Your task to perform on an android device: turn on the 12-hour format for clock Image 0: 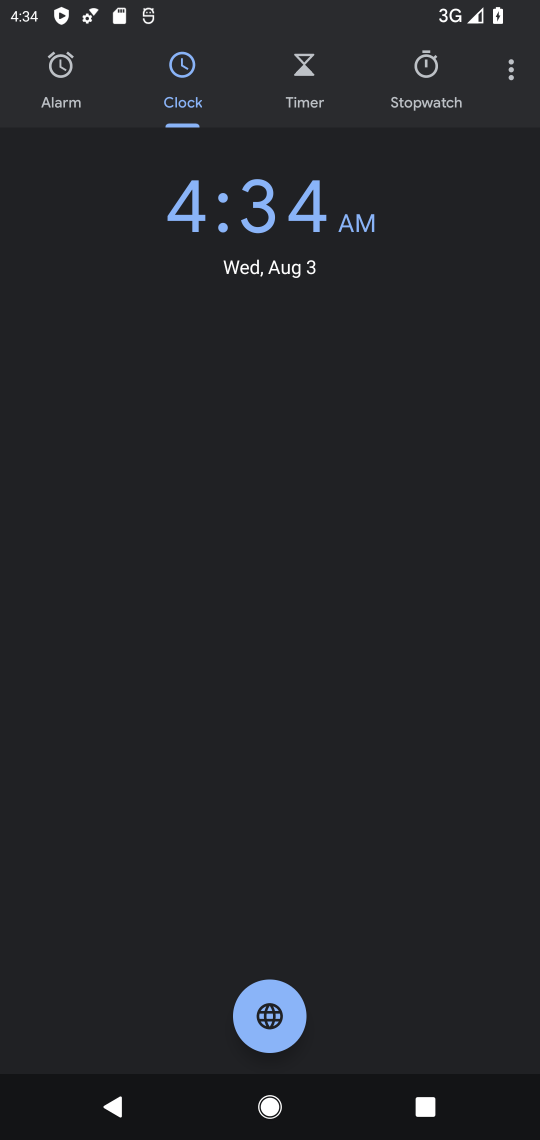
Step 0: task complete